Your task to perform on an android device: find which apps use the phone's location Image 0: 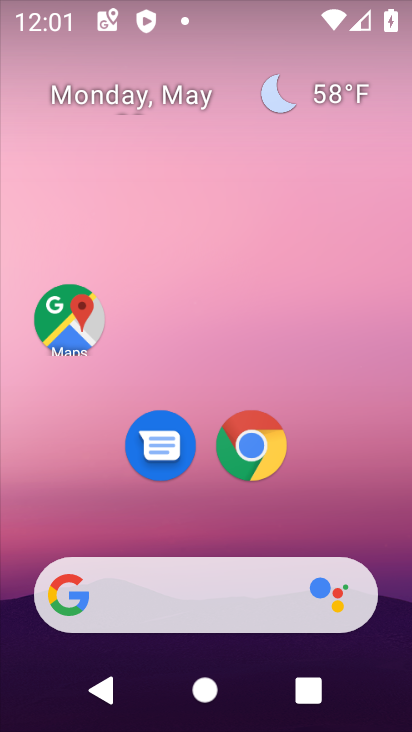
Step 0: press home button
Your task to perform on an android device: find which apps use the phone's location Image 1: 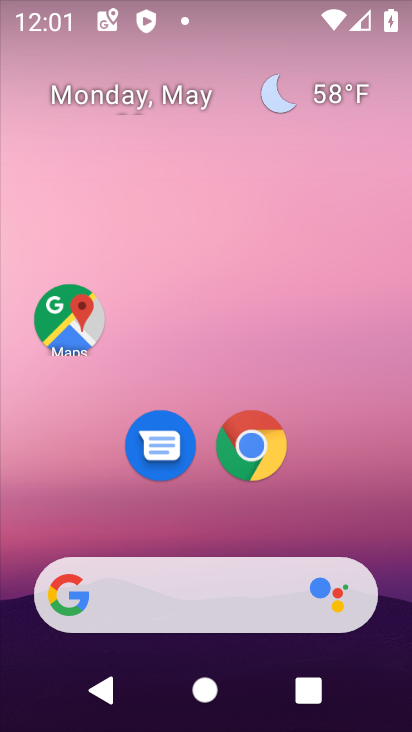
Step 1: press home button
Your task to perform on an android device: find which apps use the phone's location Image 2: 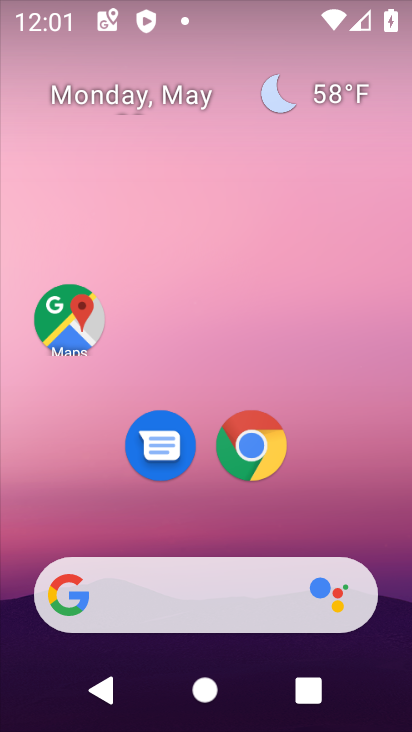
Step 2: drag from (220, 532) to (216, 137)
Your task to perform on an android device: find which apps use the phone's location Image 3: 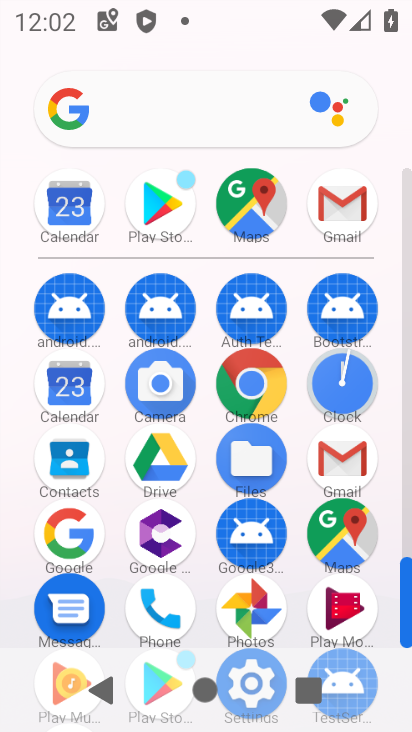
Step 3: drag from (200, 585) to (221, 216)
Your task to perform on an android device: find which apps use the phone's location Image 4: 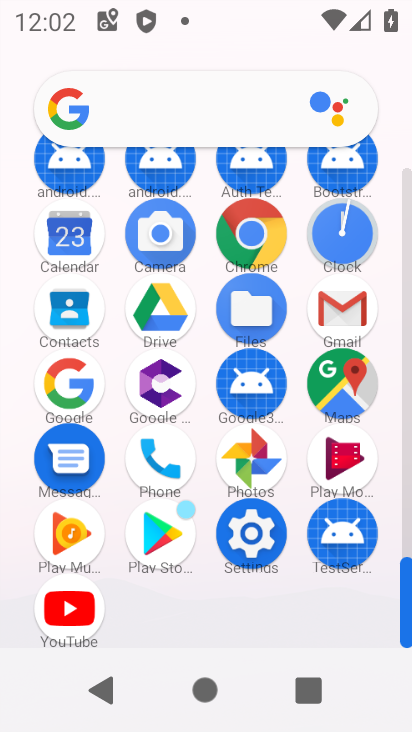
Step 4: click (249, 525)
Your task to perform on an android device: find which apps use the phone's location Image 5: 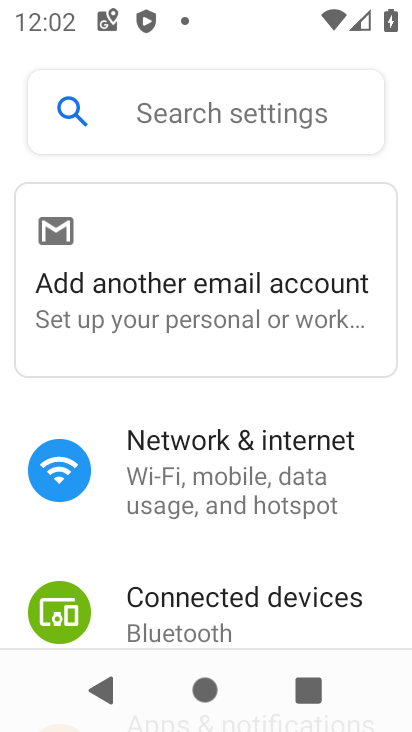
Step 5: drag from (254, 619) to (288, 76)
Your task to perform on an android device: find which apps use the phone's location Image 6: 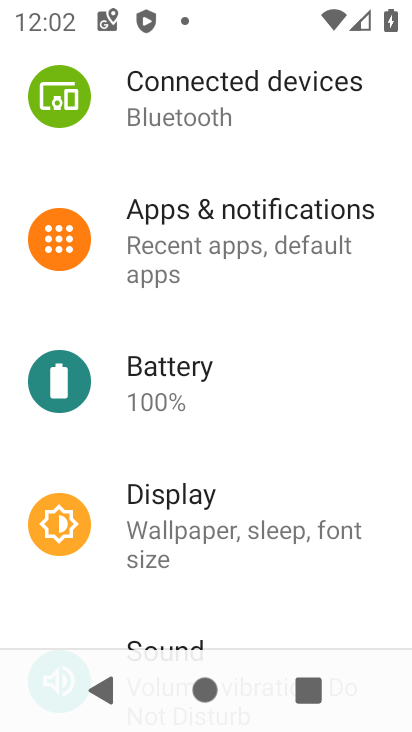
Step 6: drag from (236, 595) to (233, 84)
Your task to perform on an android device: find which apps use the phone's location Image 7: 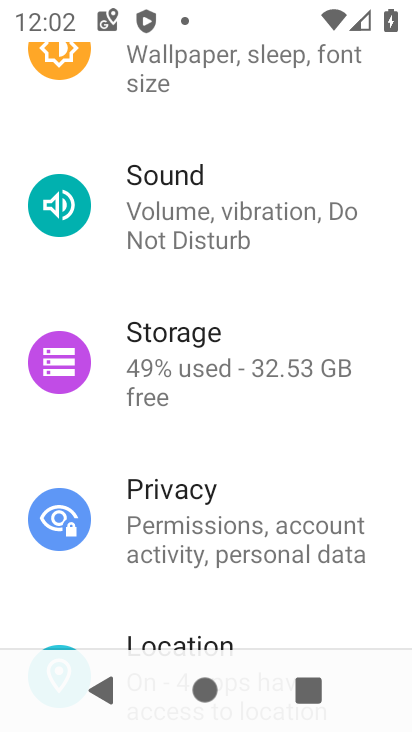
Step 7: click (255, 629)
Your task to perform on an android device: find which apps use the phone's location Image 8: 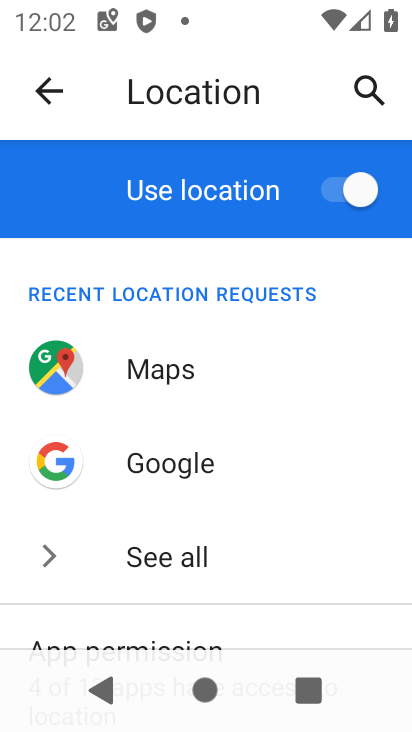
Step 8: drag from (251, 614) to (256, 254)
Your task to perform on an android device: find which apps use the phone's location Image 9: 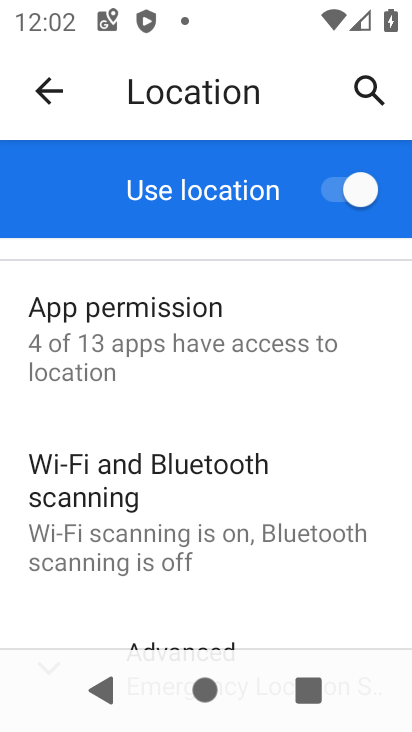
Step 9: click (177, 358)
Your task to perform on an android device: find which apps use the phone's location Image 10: 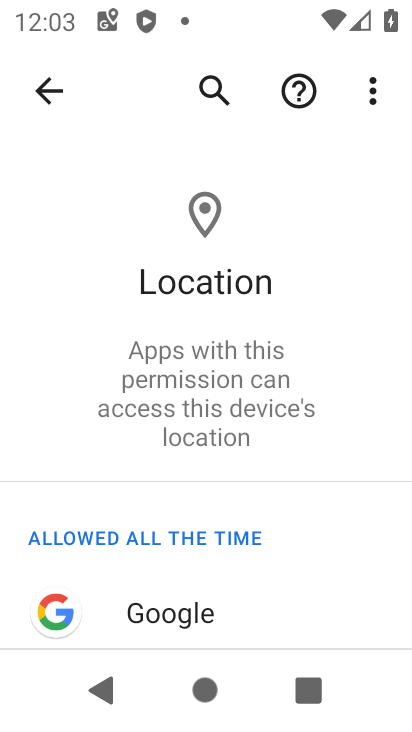
Step 10: task complete